Your task to perform on an android device: When is my next appointment? Image 0: 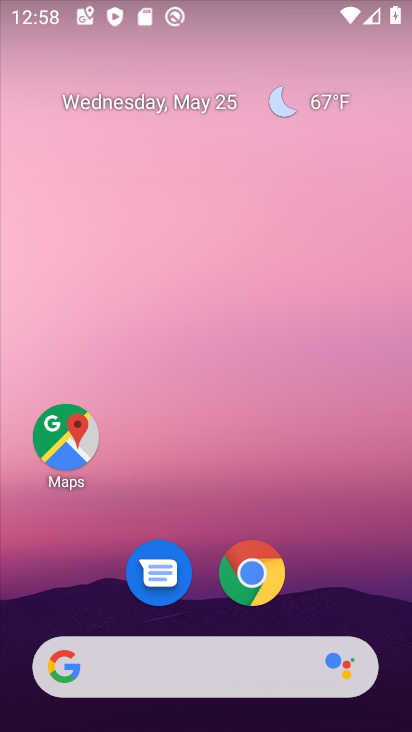
Step 0: drag from (371, 498) to (337, 8)
Your task to perform on an android device: When is my next appointment? Image 1: 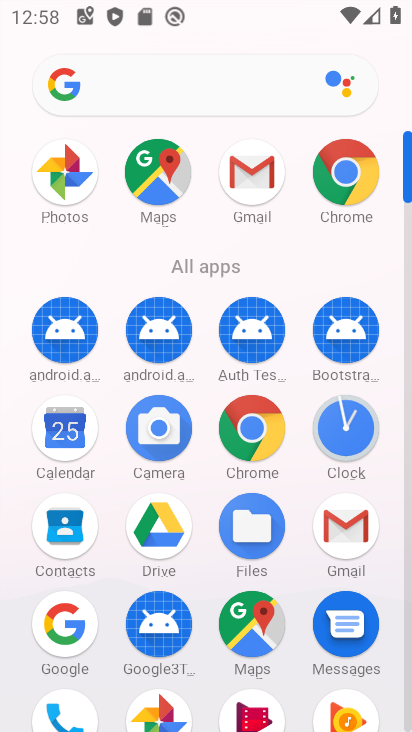
Step 1: click (56, 430)
Your task to perform on an android device: When is my next appointment? Image 2: 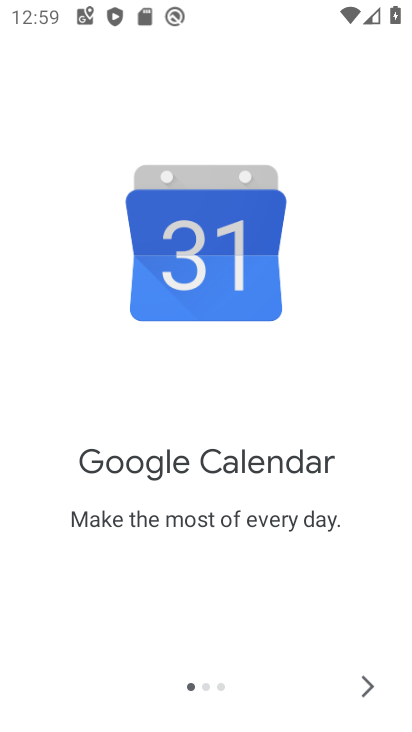
Step 2: click (364, 684)
Your task to perform on an android device: When is my next appointment? Image 3: 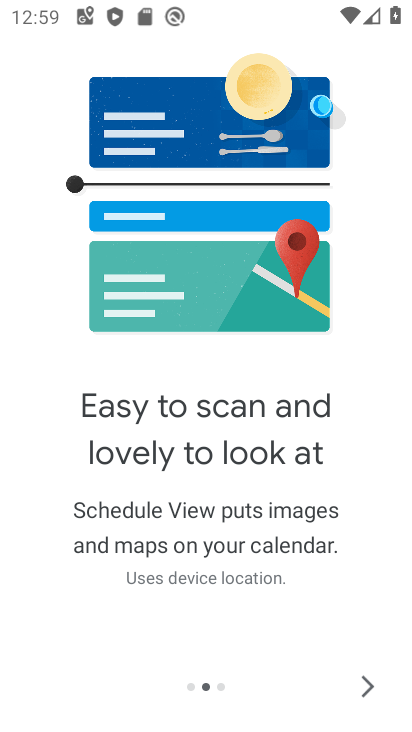
Step 3: click (364, 684)
Your task to perform on an android device: When is my next appointment? Image 4: 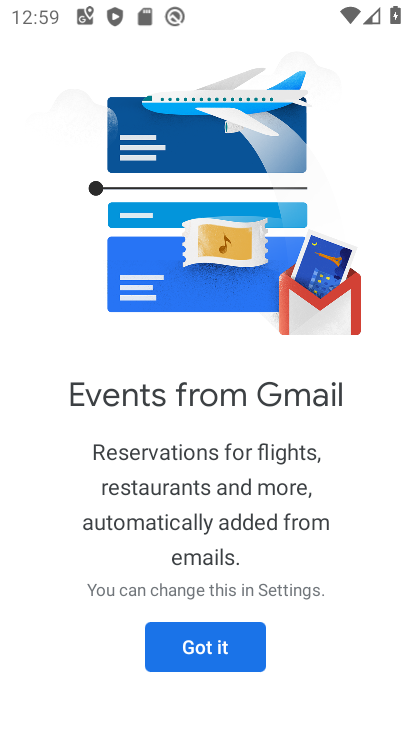
Step 4: click (212, 646)
Your task to perform on an android device: When is my next appointment? Image 5: 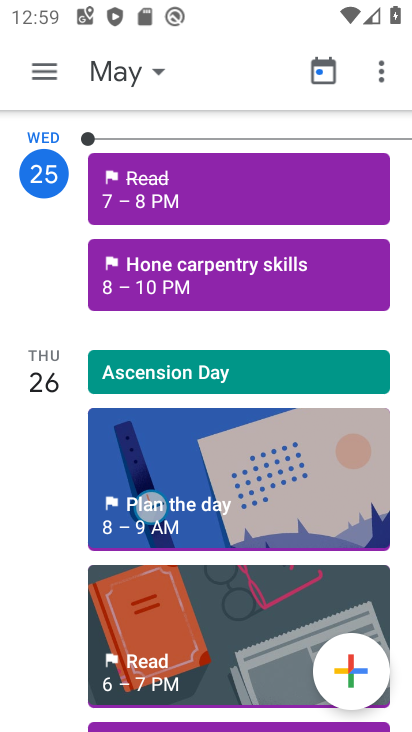
Step 5: click (47, 74)
Your task to perform on an android device: When is my next appointment? Image 6: 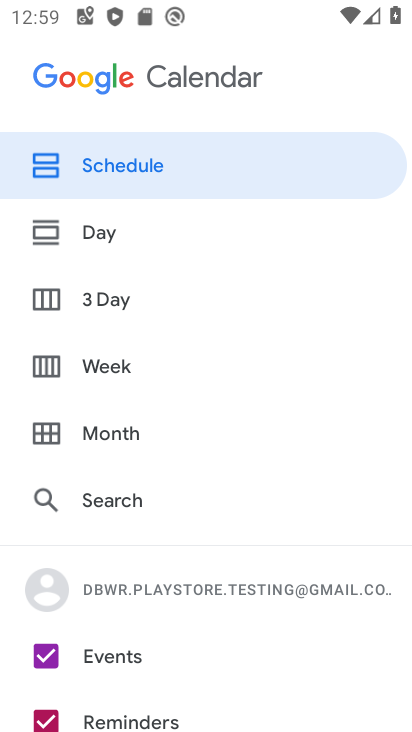
Step 6: click (155, 187)
Your task to perform on an android device: When is my next appointment? Image 7: 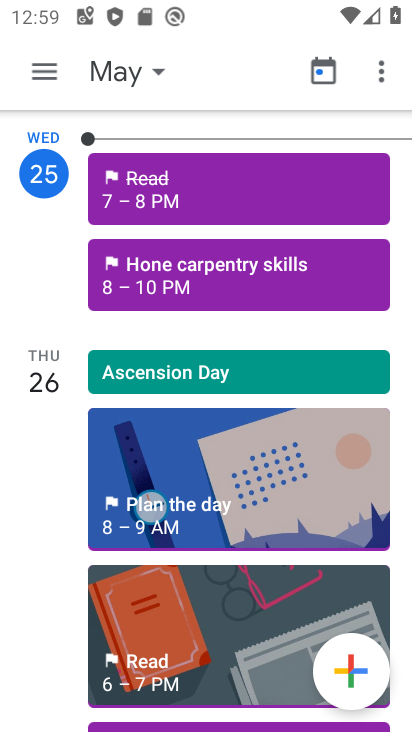
Step 7: task complete